Your task to perform on an android device: find photos in the google photos app Image 0: 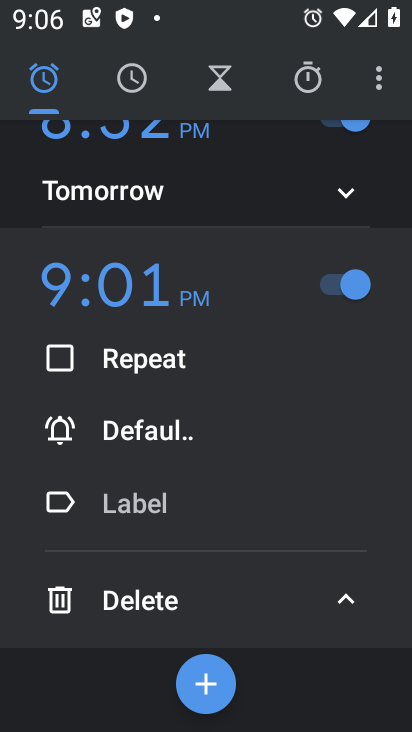
Step 0: press home button
Your task to perform on an android device: find photos in the google photos app Image 1: 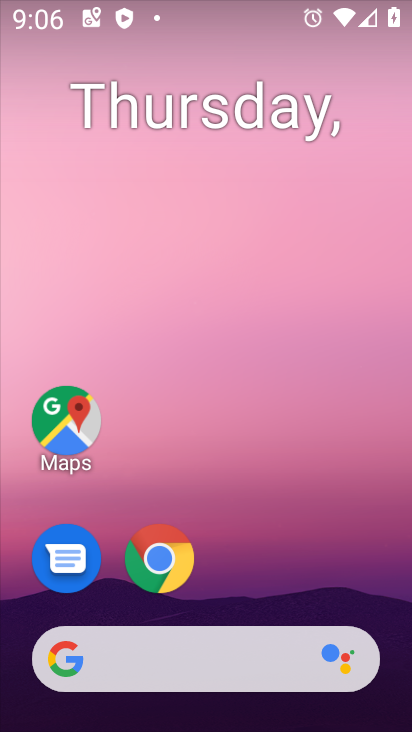
Step 1: drag from (342, 540) to (352, 145)
Your task to perform on an android device: find photos in the google photos app Image 2: 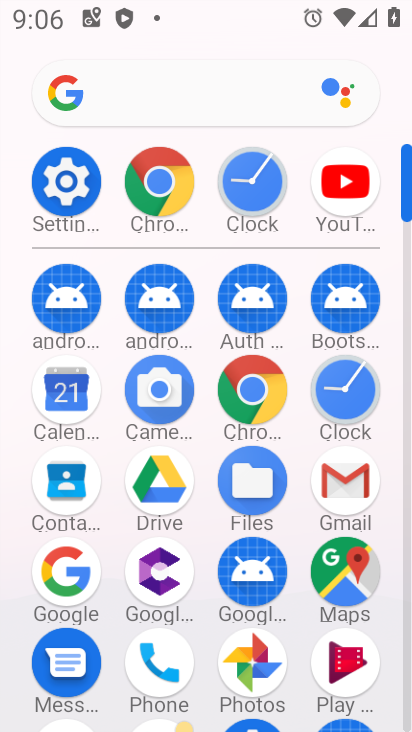
Step 2: click (248, 678)
Your task to perform on an android device: find photos in the google photos app Image 3: 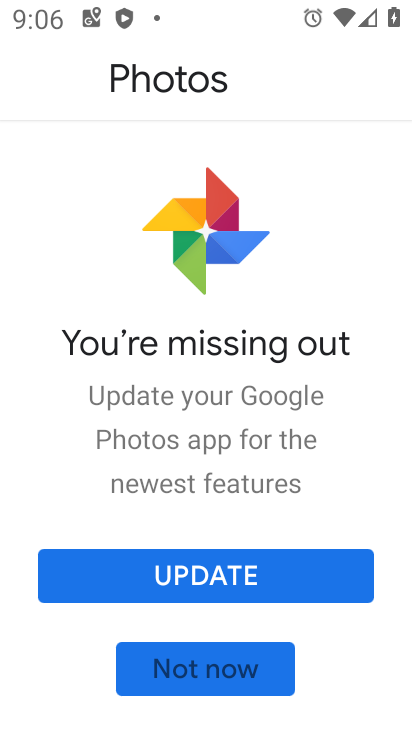
Step 3: click (278, 582)
Your task to perform on an android device: find photos in the google photos app Image 4: 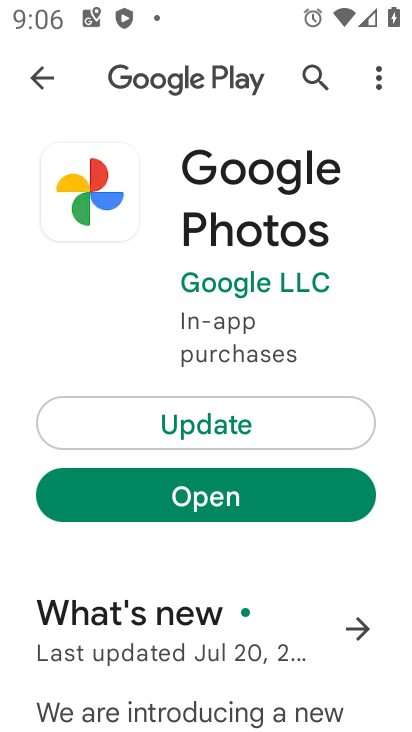
Step 4: click (258, 481)
Your task to perform on an android device: find photos in the google photos app Image 5: 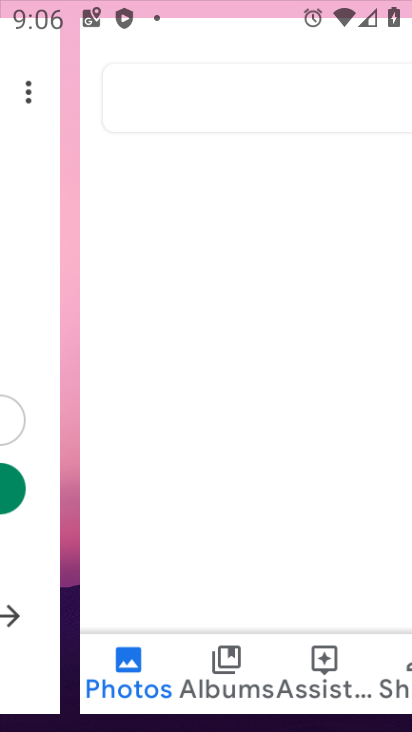
Step 5: click (254, 428)
Your task to perform on an android device: find photos in the google photos app Image 6: 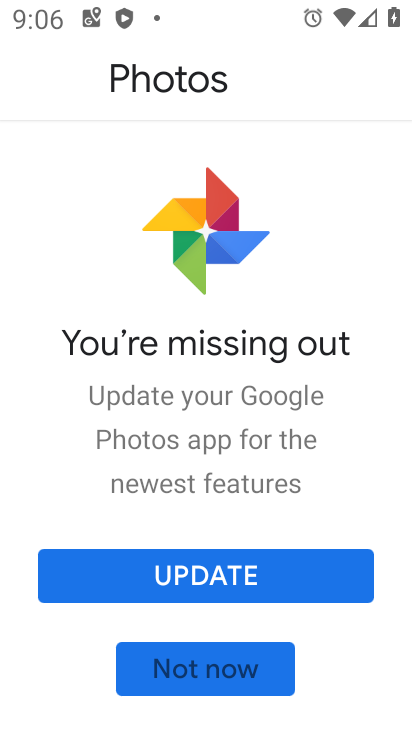
Step 6: click (200, 581)
Your task to perform on an android device: find photos in the google photos app Image 7: 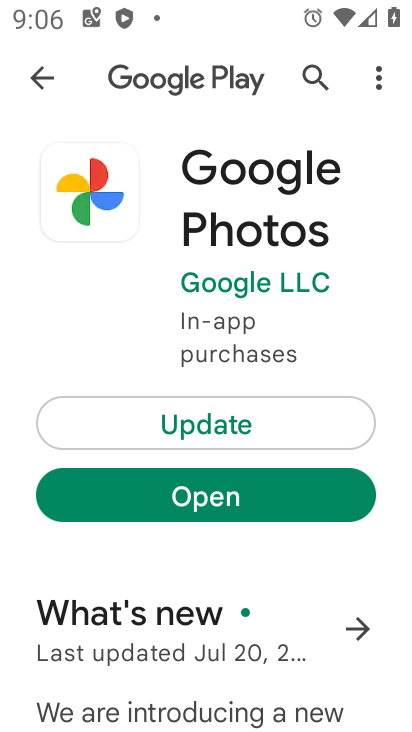
Step 7: click (258, 414)
Your task to perform on an android device: find photos in the google photos app Image 8: 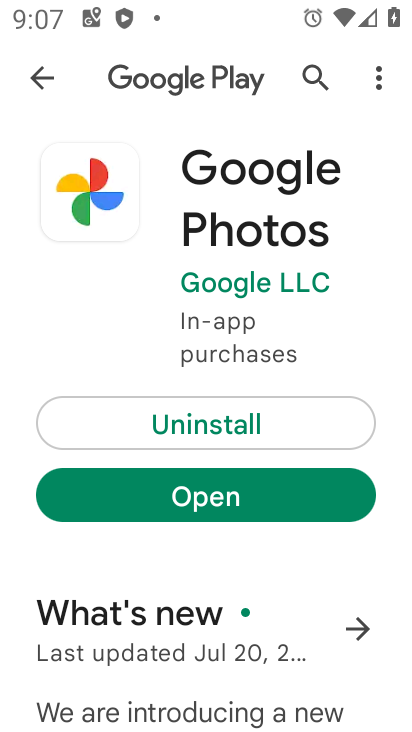
Step 8: click (336, 493)
Your task to perform on an android device: find photos in the google photos app Image 9: 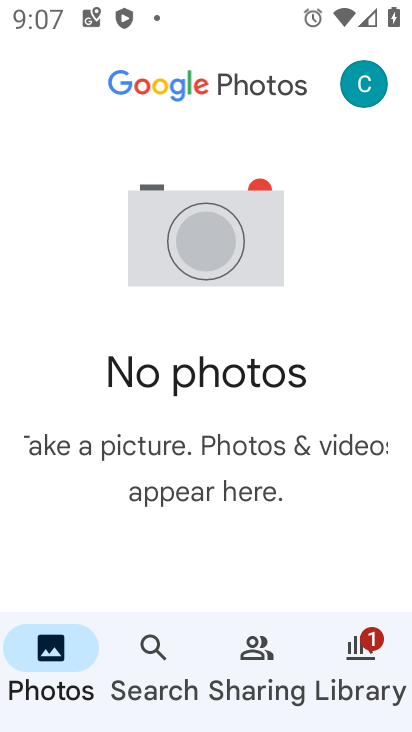
Step 9: task complete